Your task to perform on an android device: read, delete, or share a saved page in the chrome app Image 0: 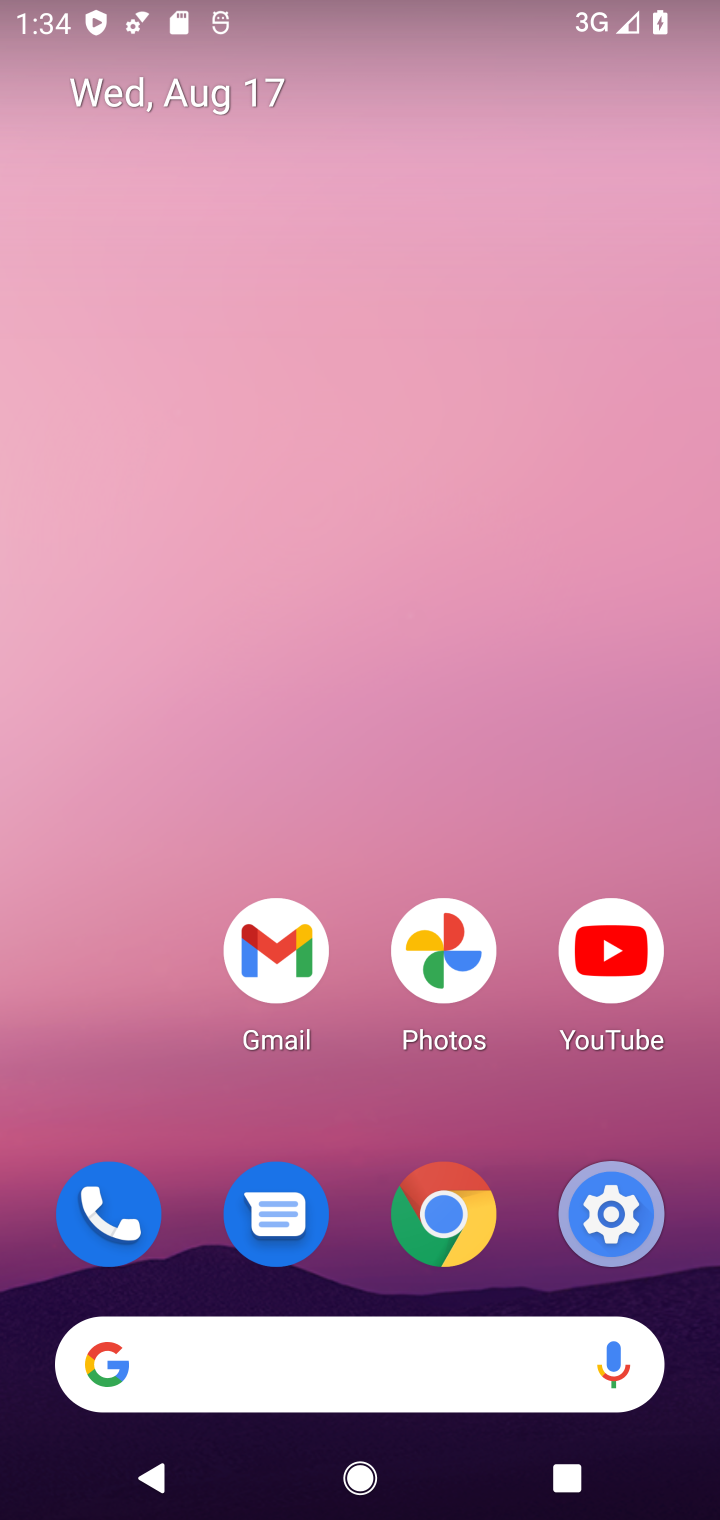
Step 0: click (446, 1220)
Your task to perform on an android device: read, delete, or share a saved page in the chrome app Image 1: 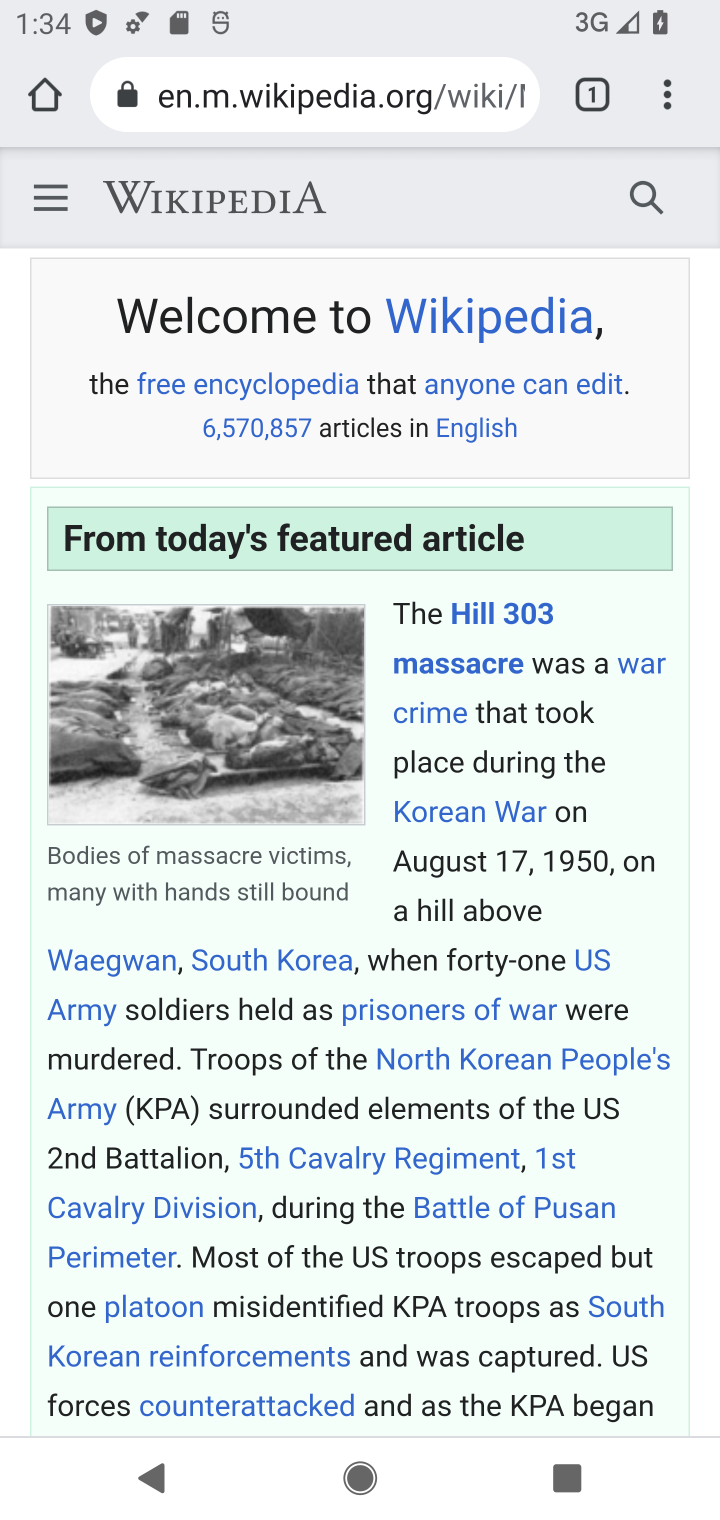
Step 1: click (663, 91)
Your task to perform on an android device: read, delete, or share a saved page in the chrome app Image 2: 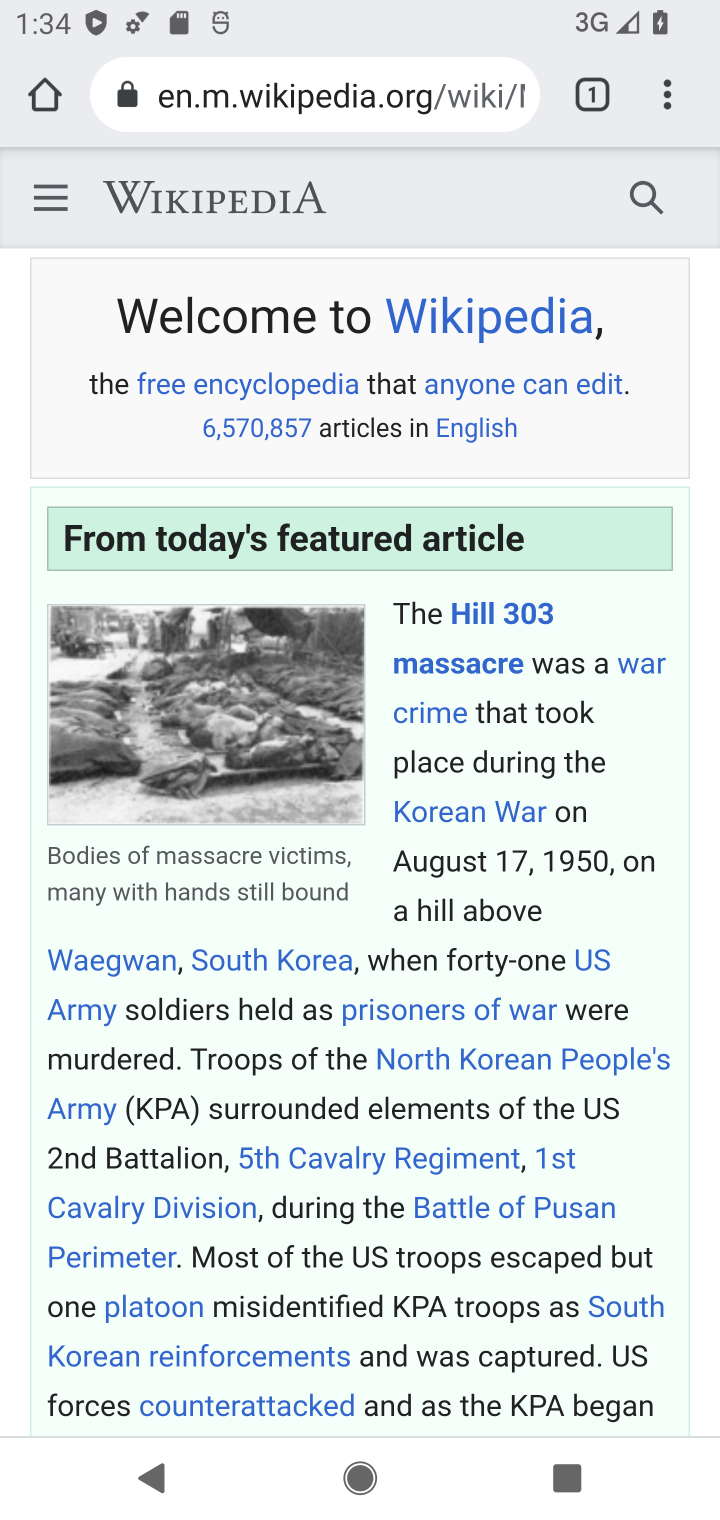
Step 2: click (643, 87)
Your task to perform on an android device: read, delete, or share a saved page in the chrome app Image 3: 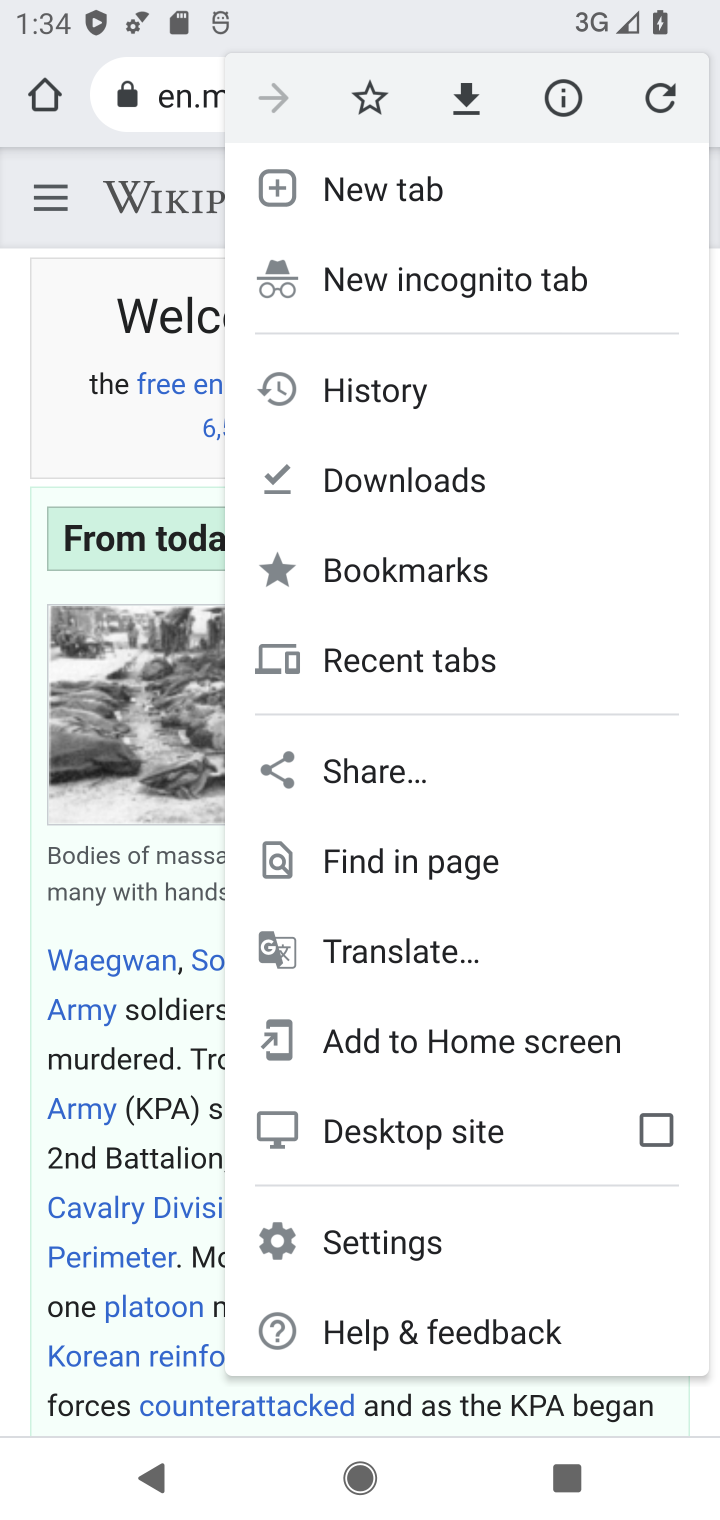
Step 3: click (408, 473)
Your task to perform on an android device: read, delete, or share a saved page in the chrome app Image 4: 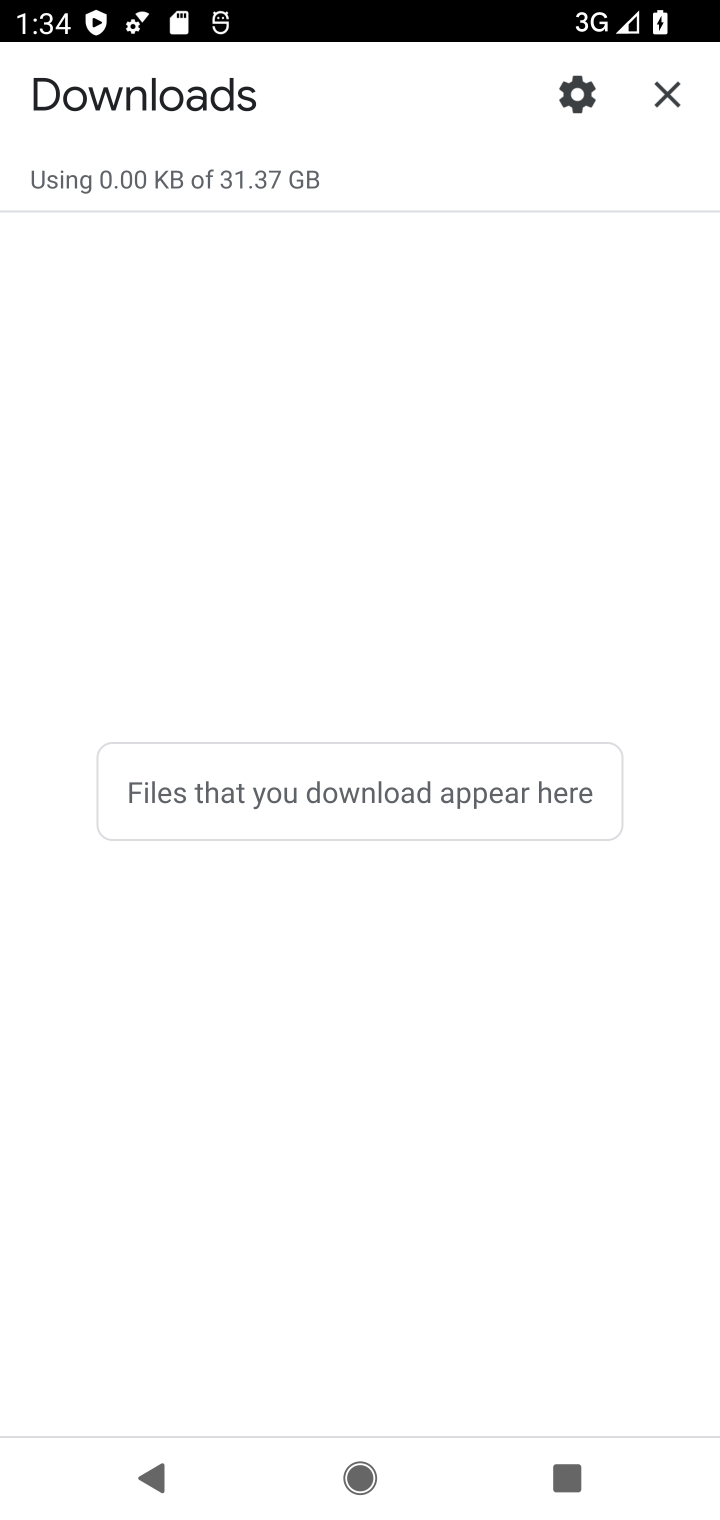
Step 4: task complete